Your task to perform on an android device: turn notification dots off Image 0: 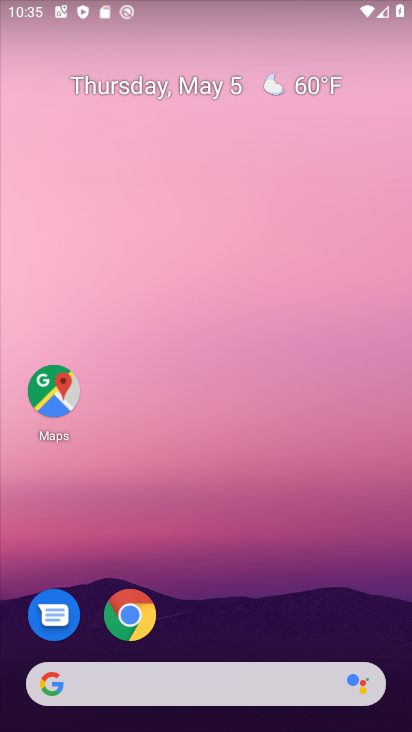
Step 0: drag from (236, 603) to (234, 154)
Your task to perform on an android device: turn notification dots off Image 1: 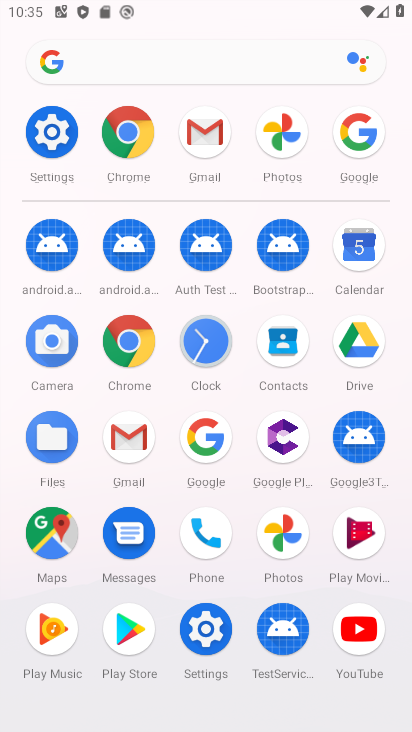
Step 1: click (55, 137)
Your task to perform on an android device: turn notification dots off Image 2: 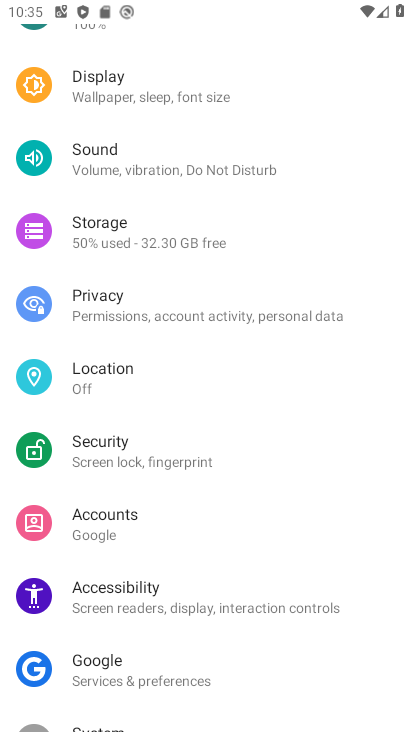
Step 2: drag from (193, 558) to (223, 606)
Your task to perform on an android device: turn notification dots off Image 3: 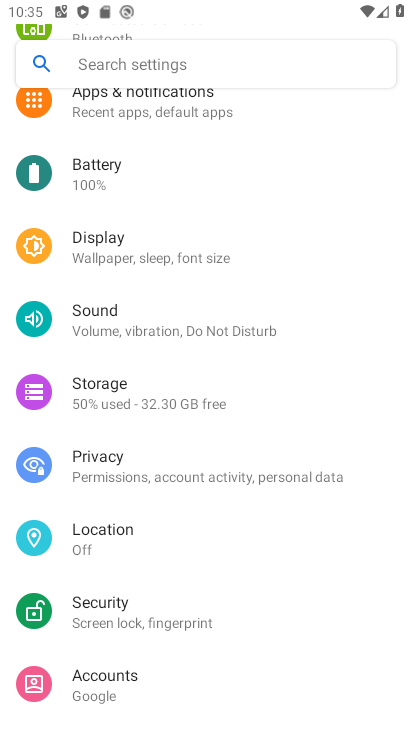
Step 3: drag from (130, 198) to (178, 463)
Your task to perform on an android device: turn notification dots off Image 4: 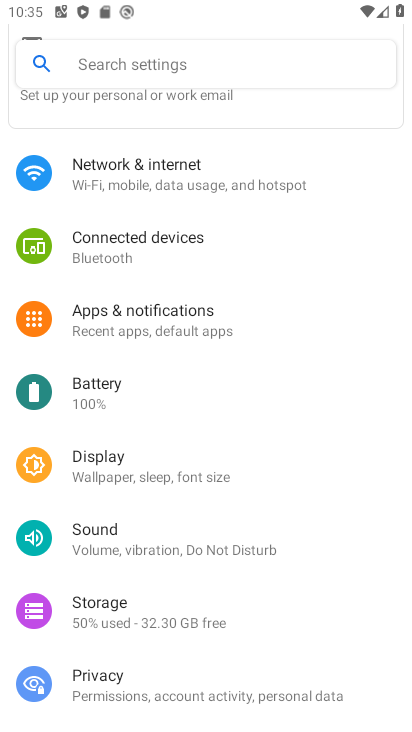
Step 4: click (114, 320)
Your task to perform on an android device: turn notification dots off Image 5: 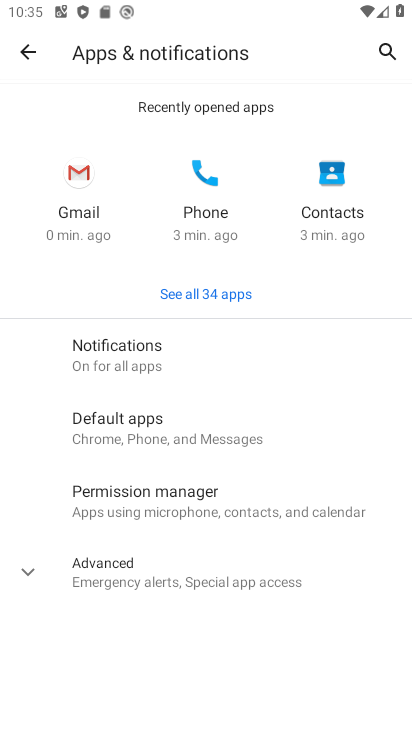
Step 5: click (133, 576)
Your task to perform on an android device: turn notification dots off Image 6: 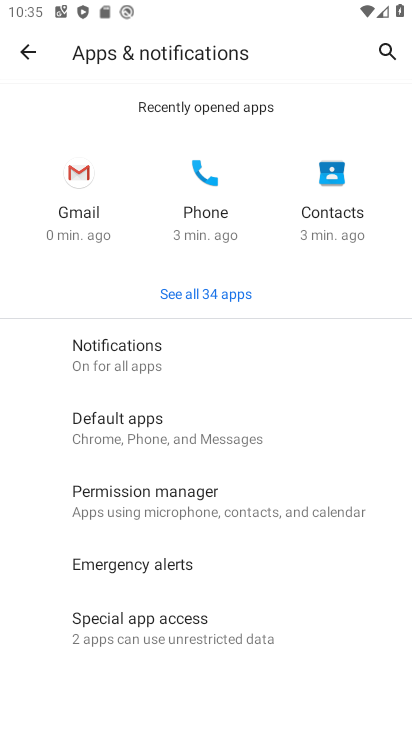
Step 6: click (113, 361)
Your task to perform on an android device: turn notification dots off Image 7: 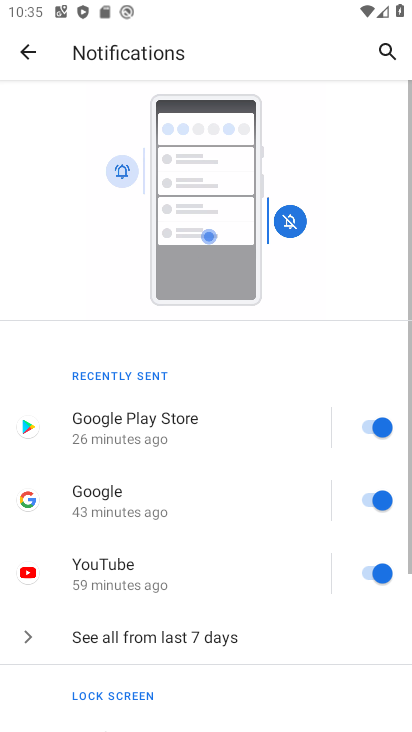
Step 7: drag from (234, 575) to (266, 50)
Your task to perform on an android device: turn notification dots off Image 8: 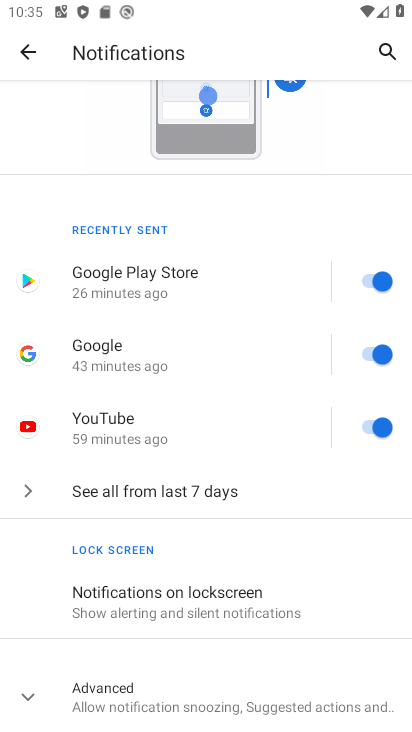
Step 8: click (134, 687)
Your task to perform on an android device: turn notification dots off Image 9: 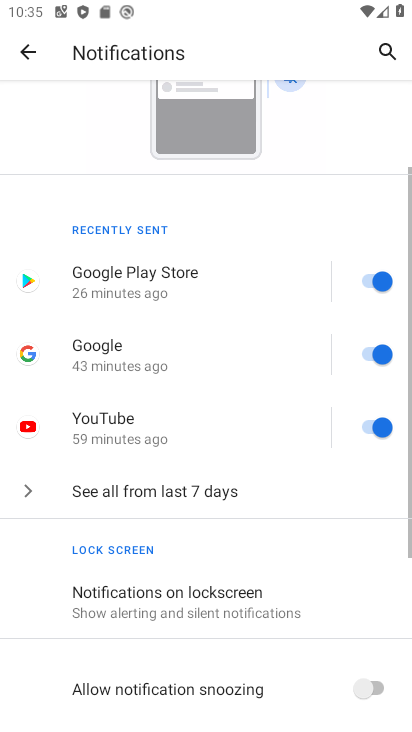
Step 9: task complete